Your task to perform on an android device: Go to Google maps Image 0: 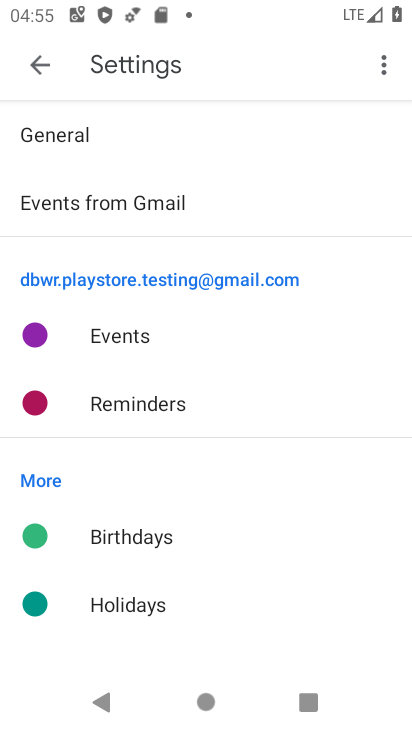
Step 0: press home button
Your task to perform on an android device: Go to Google maps Image 1: 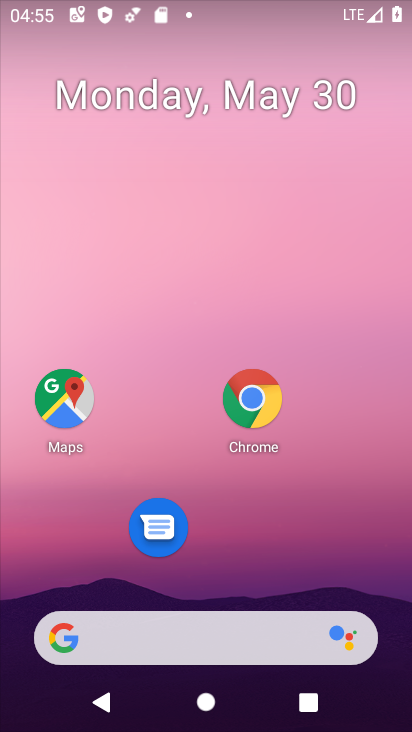
Step 1: drag from (233, 722) to (240, 23)
Your task to perform on an android device: Go to Google maps Image 2: 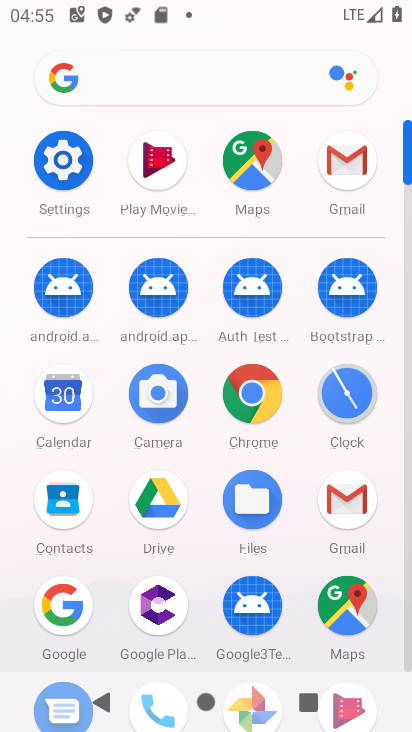
Step 2: click (359, 605)
Your task to perform on an android device: Go to Google maps Image 3: 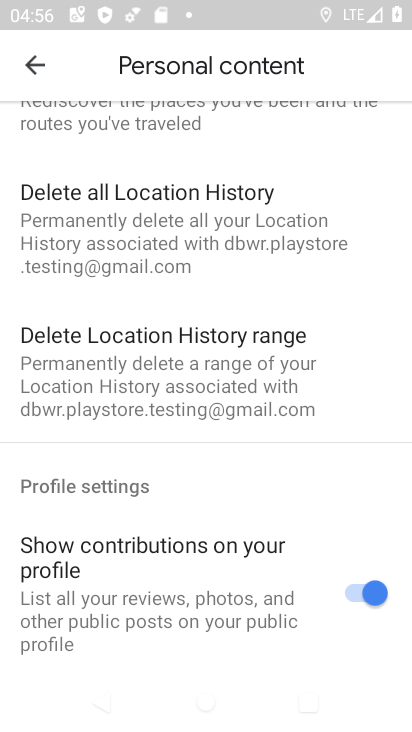
Step 3: task complete